Your task to perform on an android device: manage bookmarks in the chrome app Image 0: 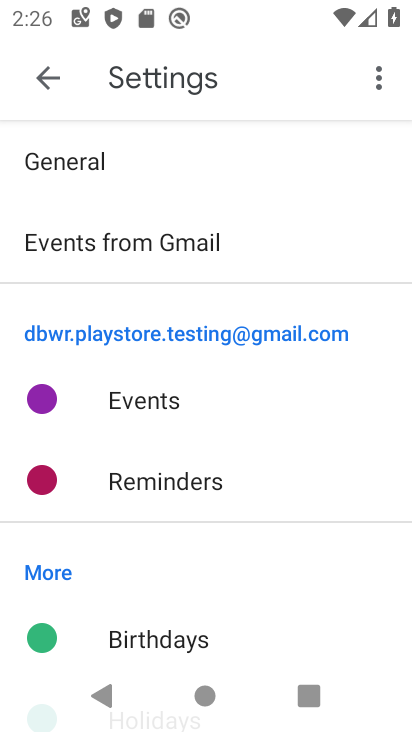
Step 0: press home button
Your task to perform on an android device: manage bookmarks in the chrome app Image 1: 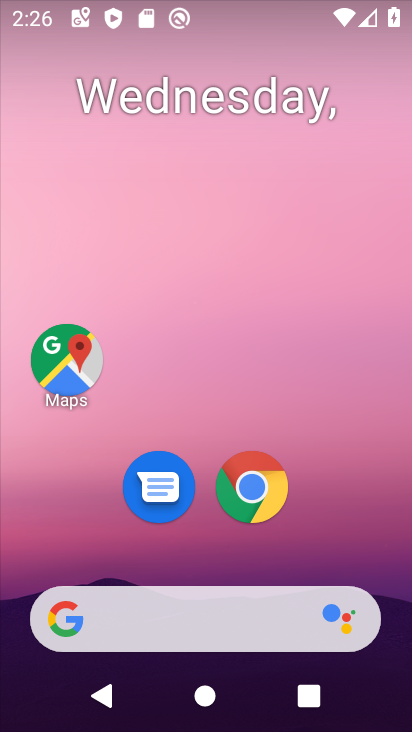
Step 1: click (245, 489)
Your task to perform on an android device: manage bookmarks in the chrome app Image 2: 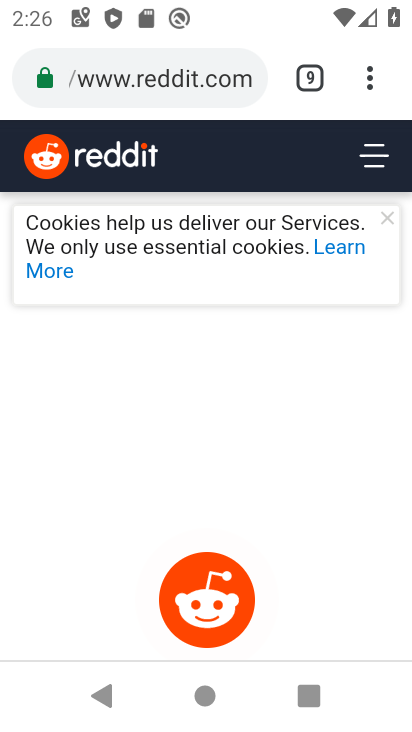
Step 2: click (368, 73)
Your task to perform on an android device: manage bookmarks in the chrome app Image 3: 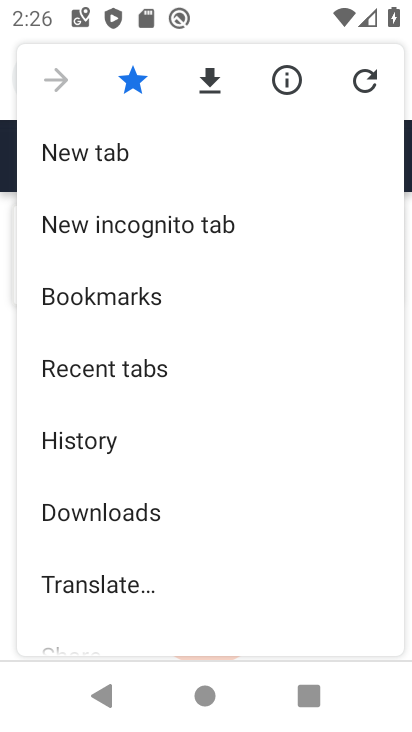
Step 3: click (109, 286)
Your task to perform on an android device: manage bookmarks in the chrome app Image 4: 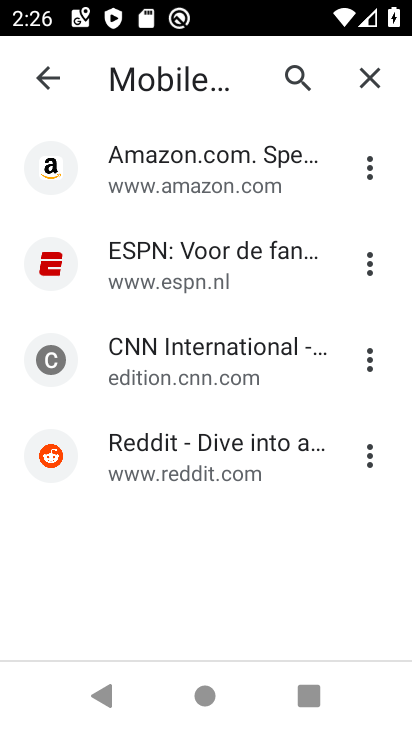
Step 4: click (373, 160)
Your task to perform on an android device: manage bookmarks in the chrome app Image 5: 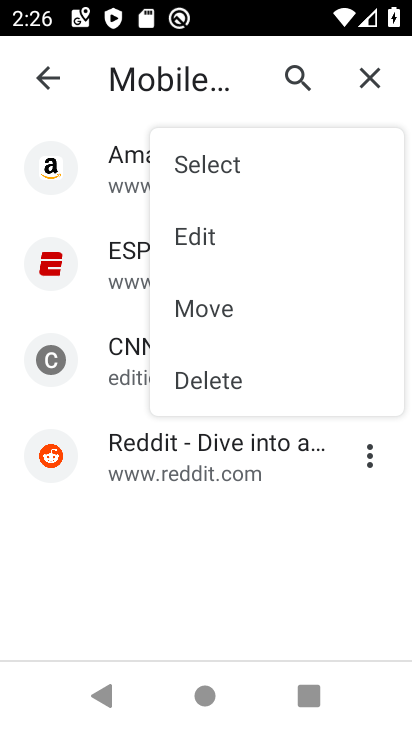
Step 5: click (195, 236)
Your task to perform on an android device: manage bookmarks in the chrome app Image 6: 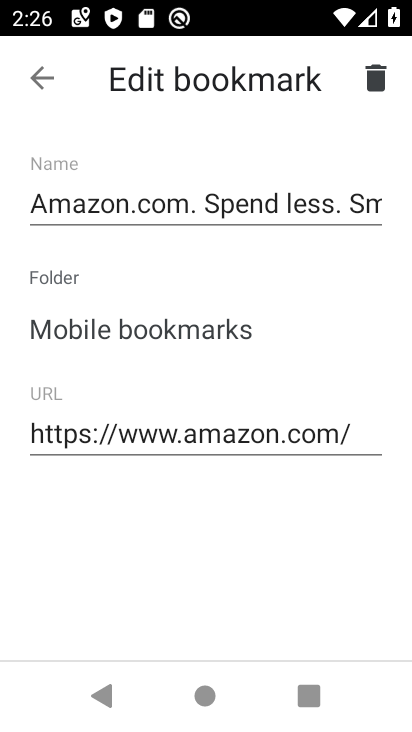
Step 6: task complete